Your task to perform on an android device: Search for Italian restaurants on Maps Image 0: 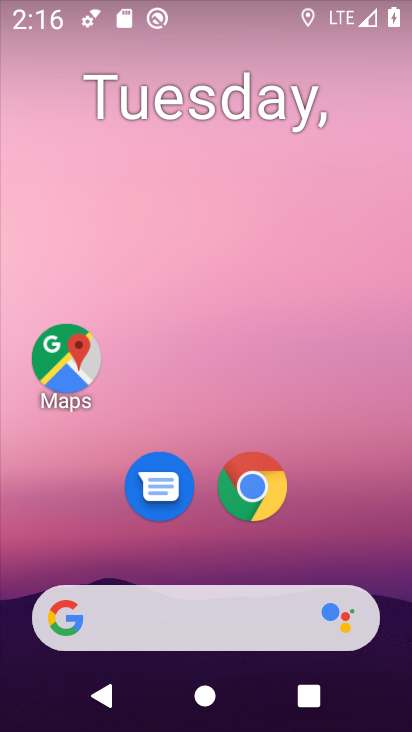
Step 0: press home button
Your task to perform on an android device: Search for Italian restaurants on Maps Image 1: 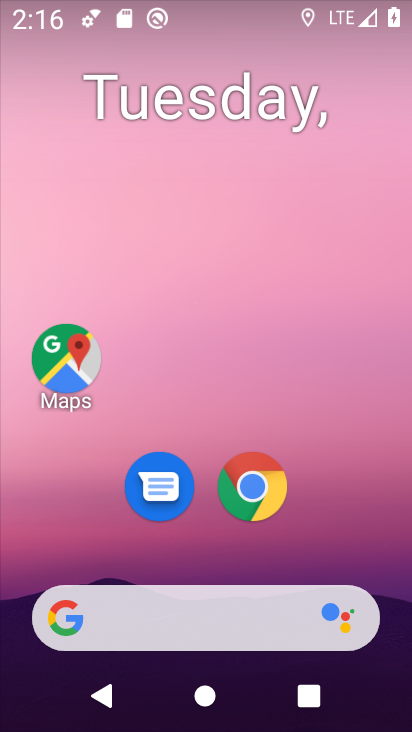
Step 1: drag from (359, 494) to (356, 76)
Your task to perform on an android device: Search for Italian restaurants on Maps Image 2: 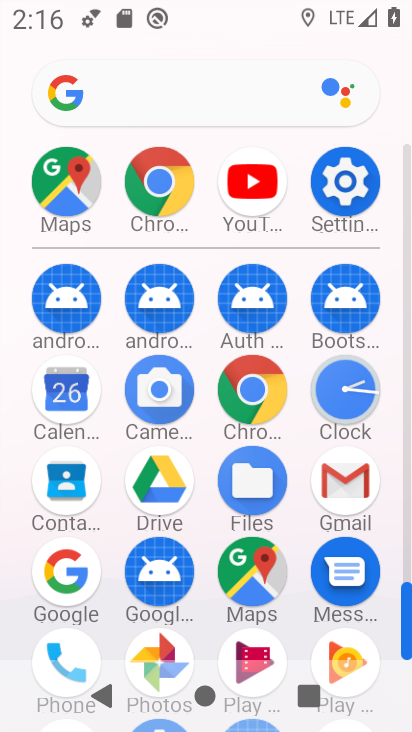
Step 2: click (263, 562)
Your task to perform on an android device: Search for Italian restaurants on Maps Image 3: 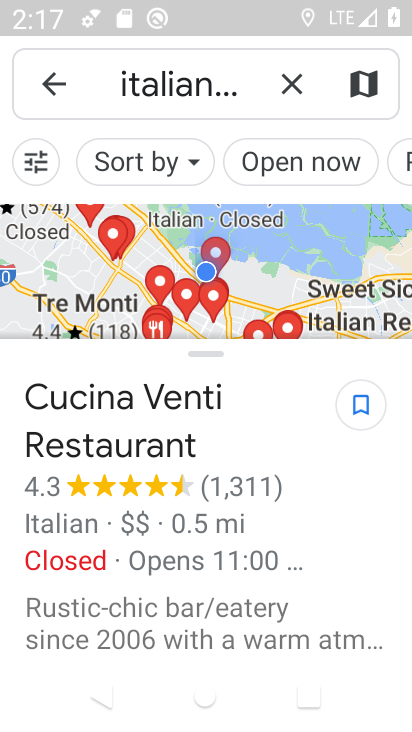
Step 3: task complete